Your task to perform on an android device: empty trash in google photos Image 0: 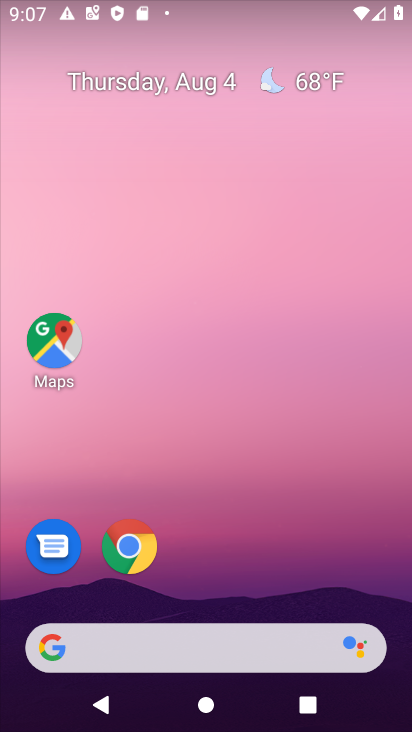
Step 0: drag from (247, 611) to (251, 99)
Your task to perform on an android device: empty trash in google photos Image 1: 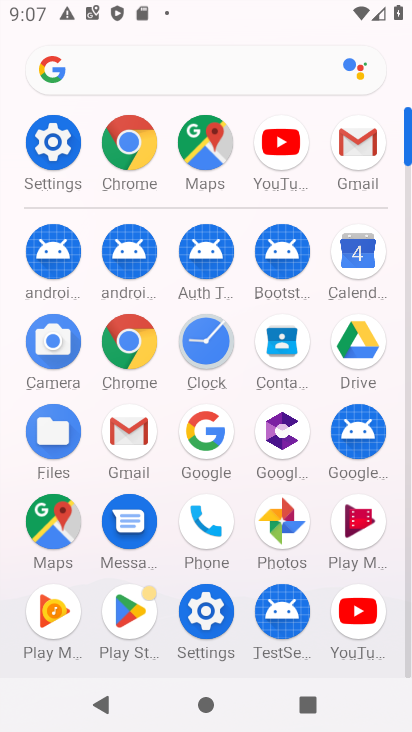
Step 1: click (278, 528)
Your task to perform on an android device: empty trash in google photos Image 2: 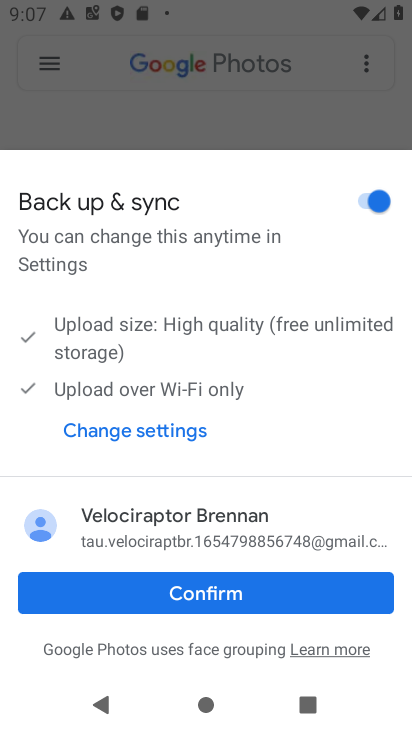
Step 2: click (261, 589)
Your task to perform on an android device: empty trash in google photos Image 3: 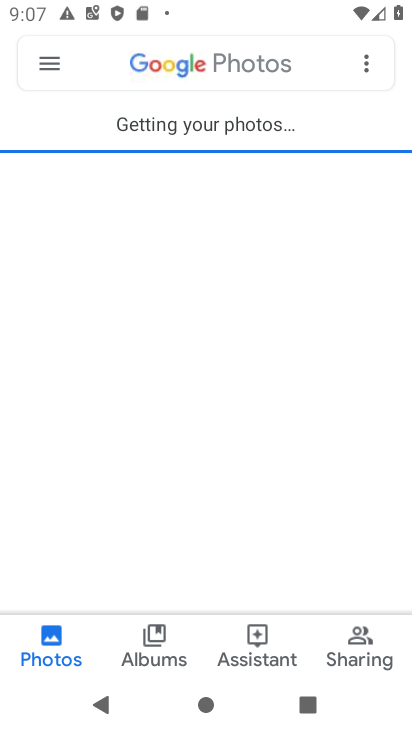
Step 3: click (59, 67)
Your task to perform on an android device: empty trash in google photos Image 4: 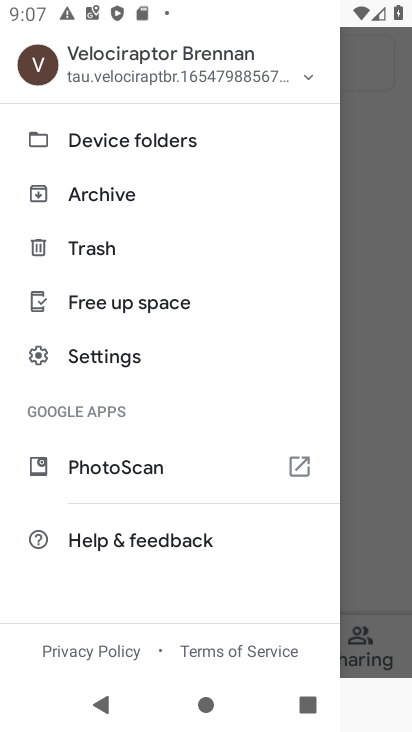
Step 4: click (86, 252)
Your task to perform on an android device: empty trash in google photos Image 5: 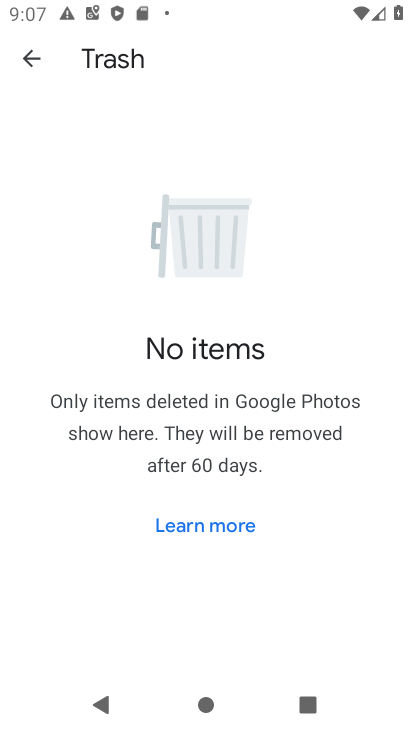
Step 5: task complete